Your task to perform on an android device: turn off location Image 0: 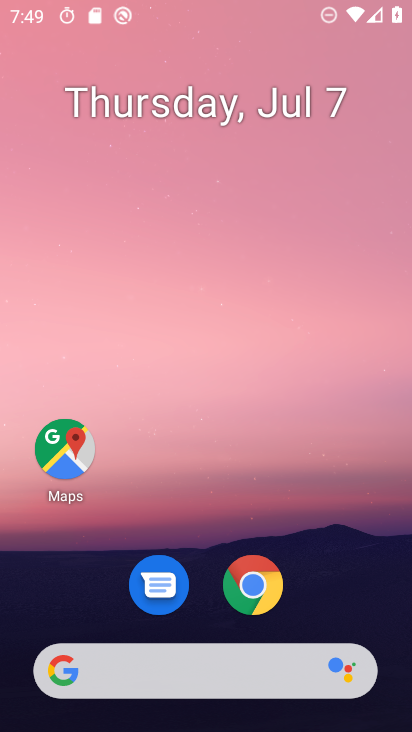
Step 0: drag from (242, 430) to (319, 170)
Your task to perform on an android device: turn off location Image 1: 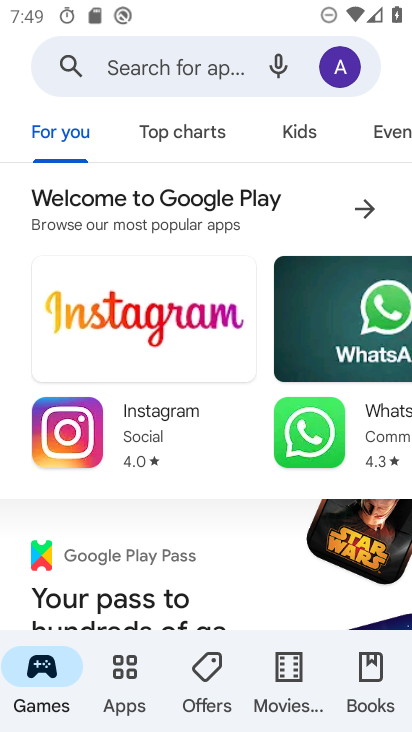
Step 1: press home button
Your task to perform on an android device: turn off location Image 2: 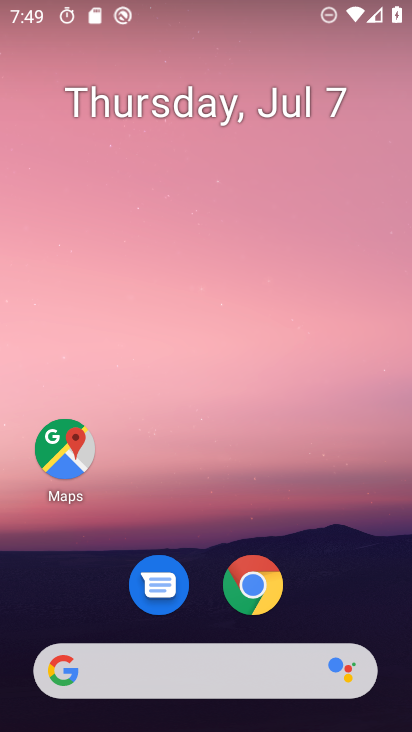
Step 2: drag from (210, 665) to (353, 51)
Your task to perform on an android device: turn off location Image 3: 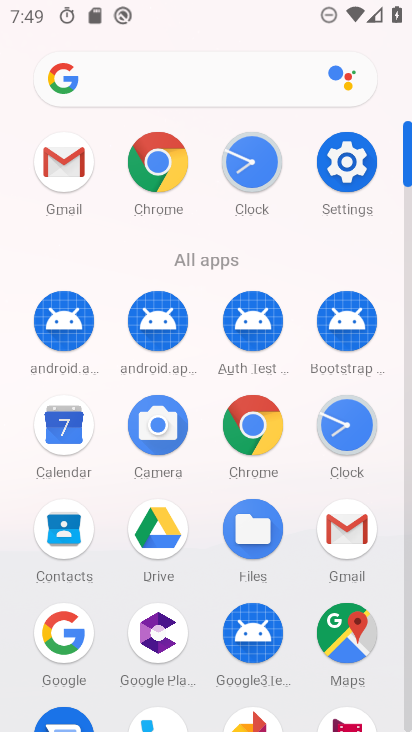
Step 3: click (357, 172)
Your task to perform on an android device: turn off location Image 4: 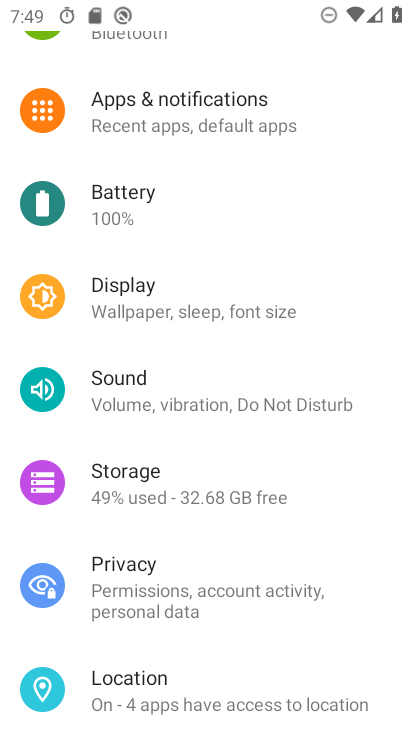
Step 4: drag from (133, 646) to (197, 139)
Your task to perform on an android device: turn off location Image 5: 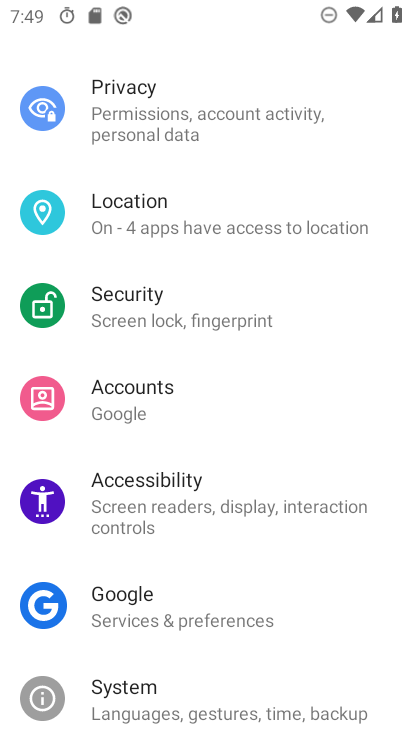
Step 5: click (143, 208)
Your task to perform on an android device: turn off location Image 6: 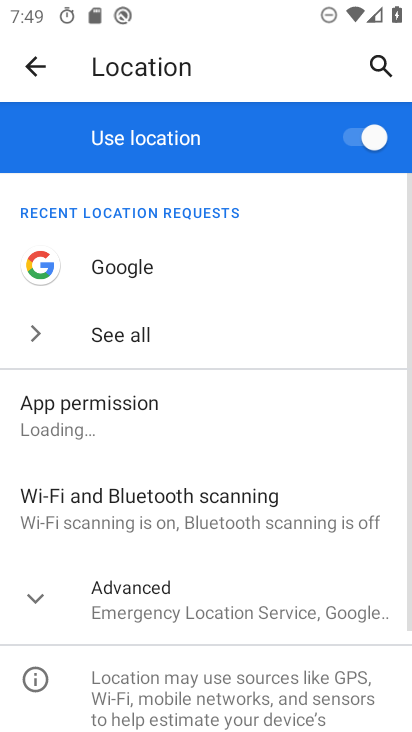
Step 6: click (356, 137)
Your task to perform on an android device: turn off location Image 7: 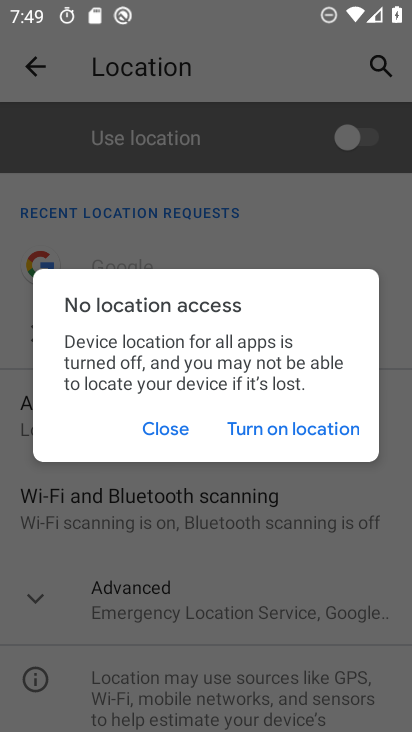
Step 7: task complete